Your task to perform on an android device: check android version Image 0: 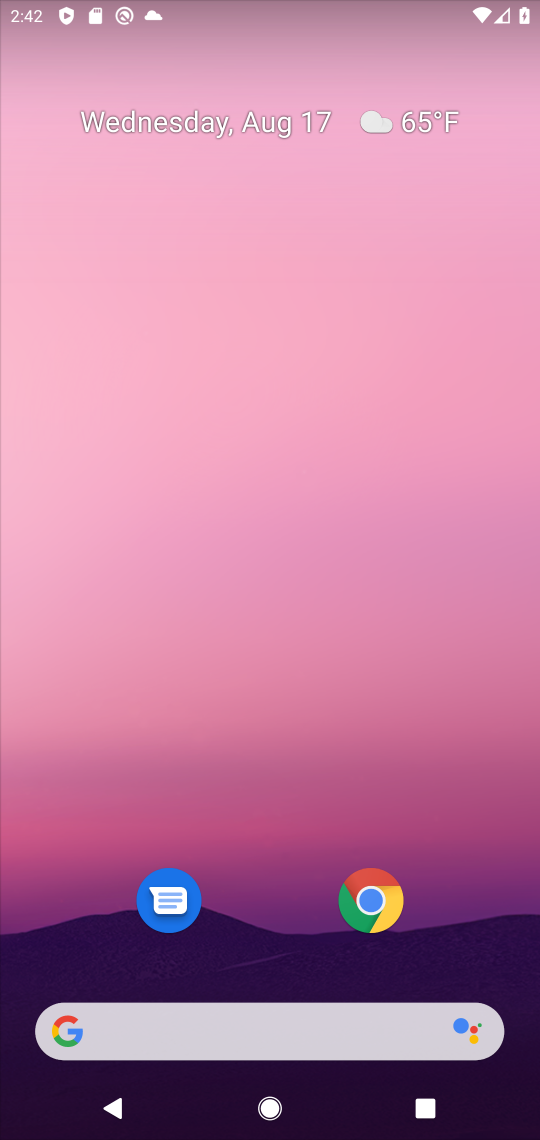
Step 0: press home button
Your task to perform on an android device: check android version Image 1: 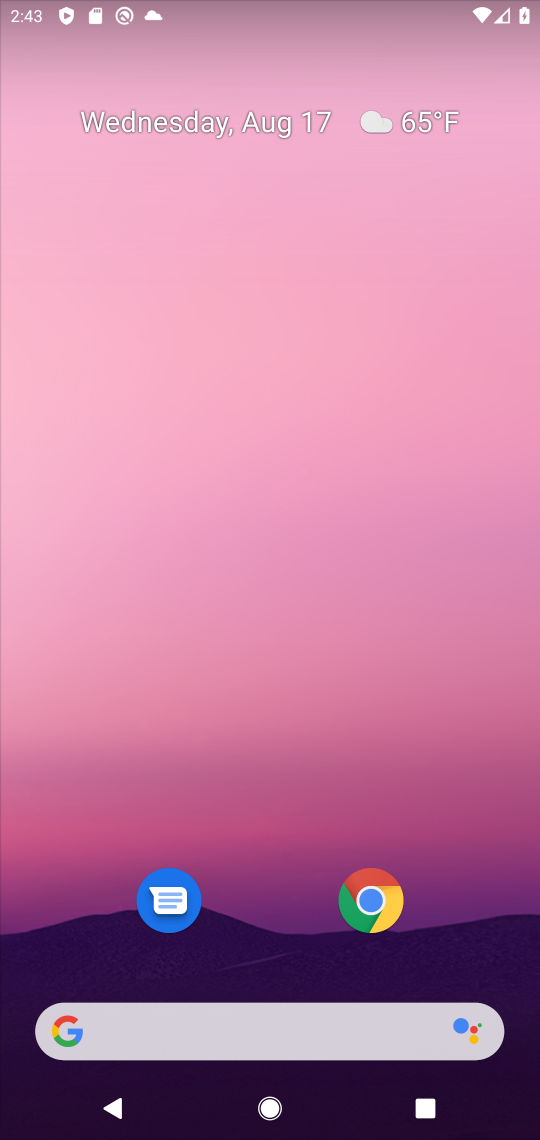
Step 1: drag from (308, 1019) to (423, 120)
Your task to perform on an android device: check android version Image 2: 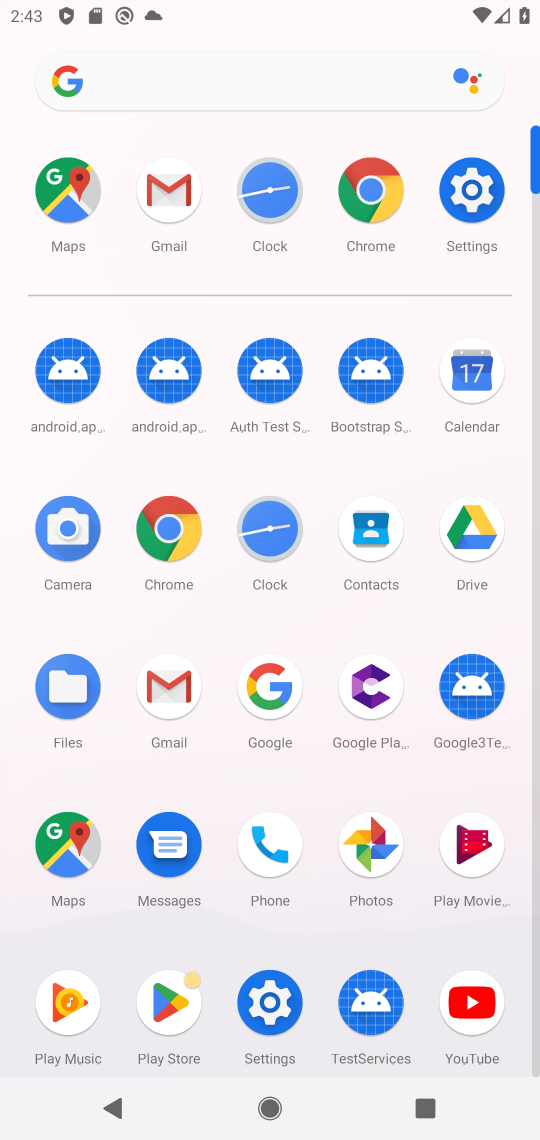
Step 2: click (469, 192)
Your task to perform on an android device: check android version Image 3: 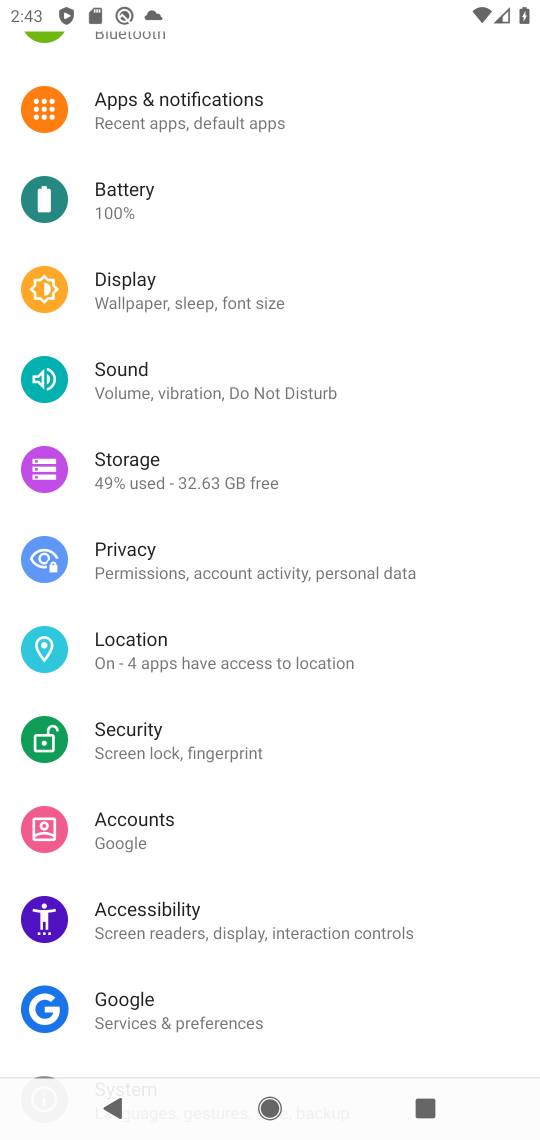
Step 3: drag from (246, 1004) to (349, 65)
Your task to perform on an android device: check android version Image 4: 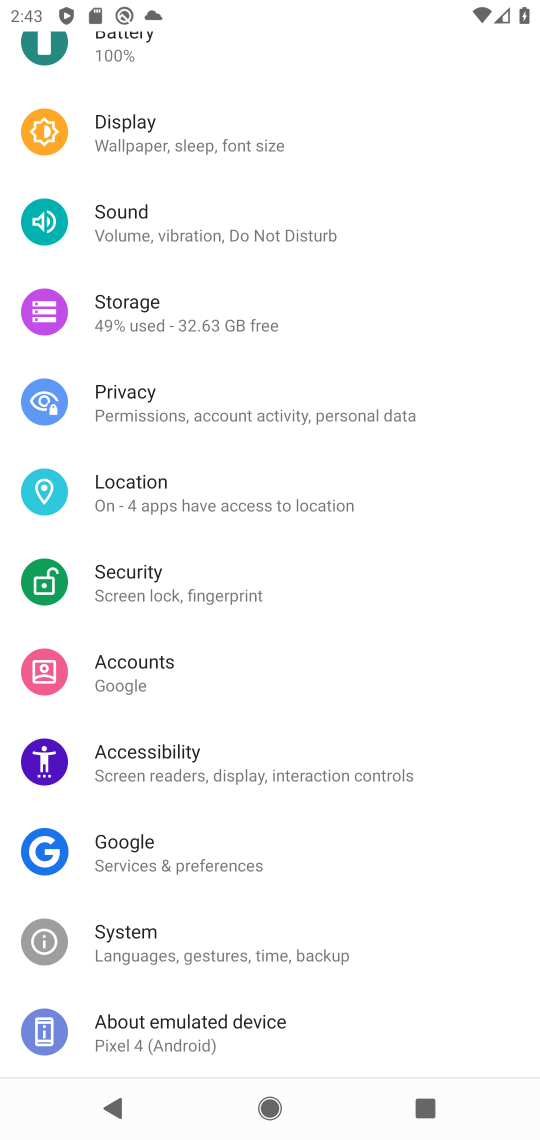
Step 4: click (179, 1027)
Your task to perform on an android device: check android version Image 5: 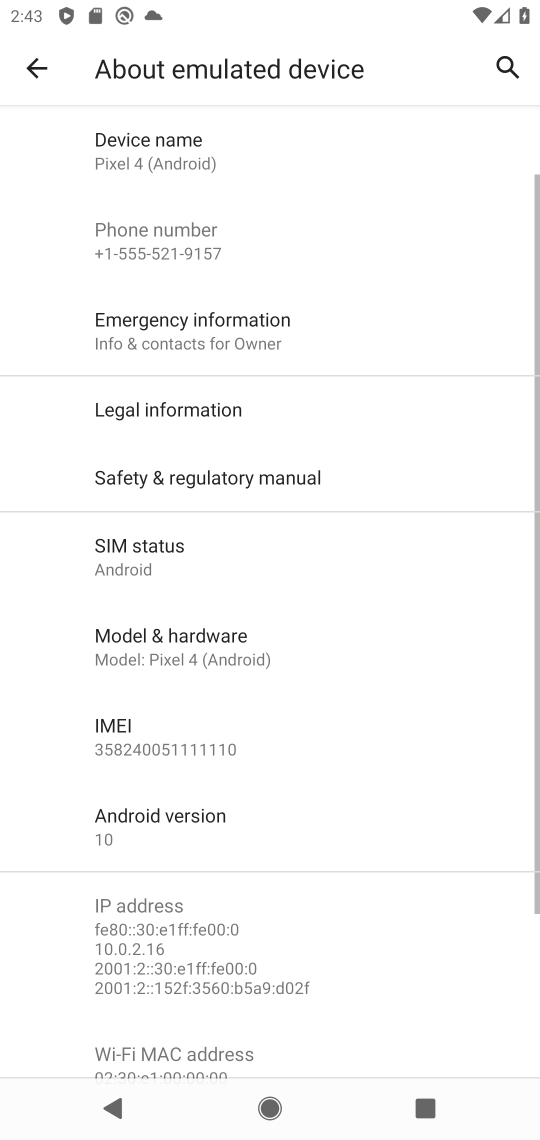
Step 5: drag from (238, 1001) to (429, 383)
Your task to perform on an android device: check android version Image 6: 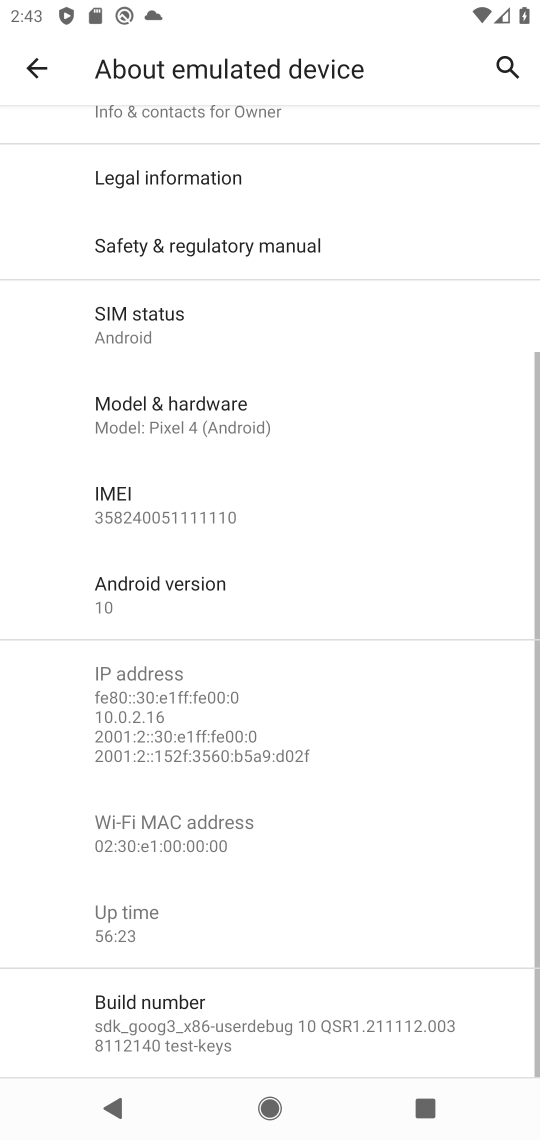
Step 6: click (180, 583)
Your task to perform on an android device: check android version Image 7: 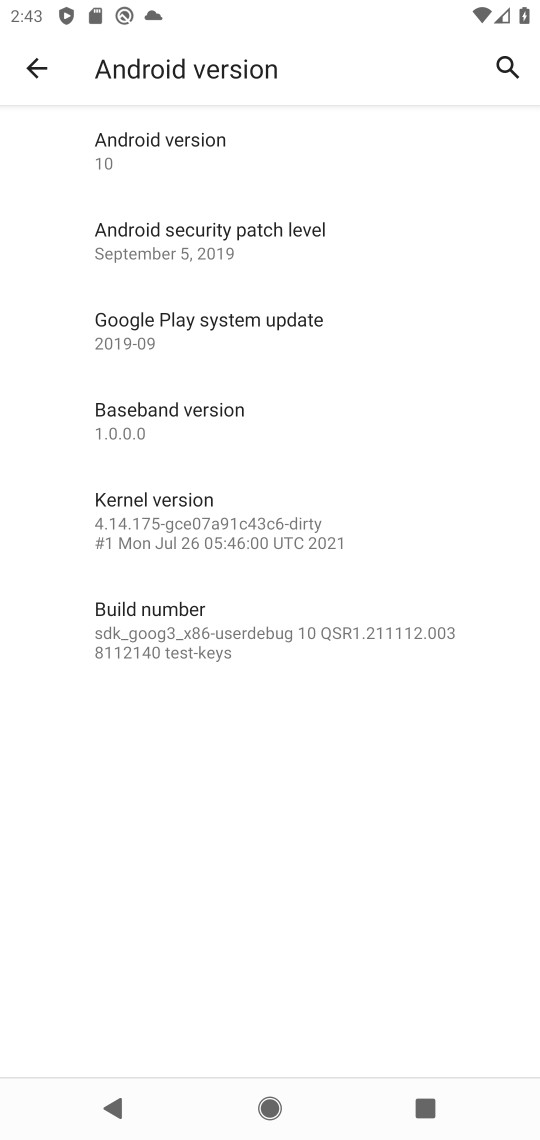
Step 7: task complete